Your task to perform on an android device: create a new album in the google photos Image 0: 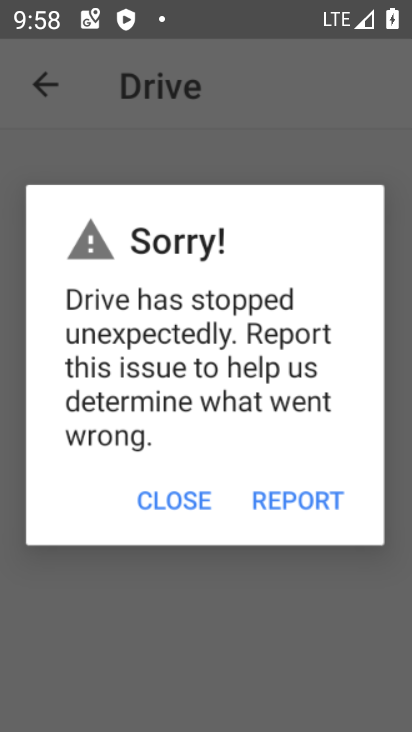
Step 0: drag from (273, 540) to (311, 146)
Your task to perform on an android device: create a new album in the google photos Image 1: 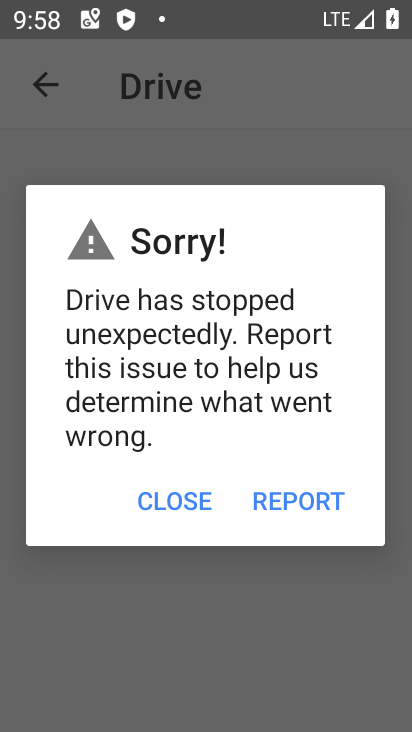
Step 1: press home button
Your task to perform on an android device: create a new album in the google photos Image 2: 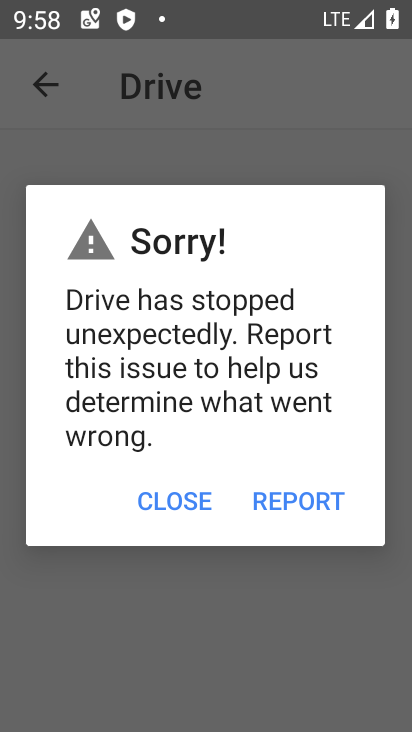
Step 2: click (364, 339)
Your task to perform on an android device: create a new album in the google photos Image 3: 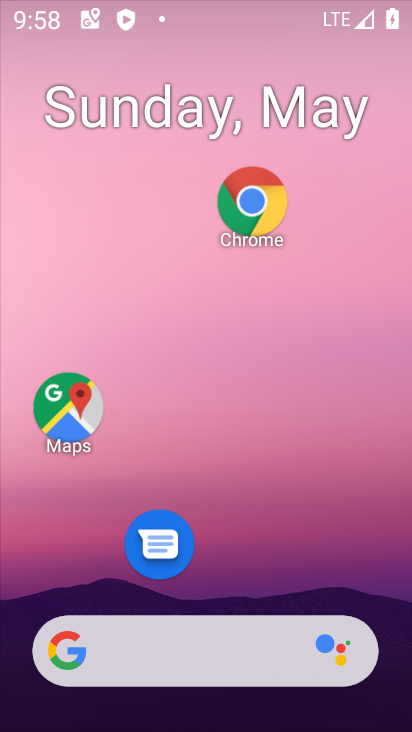
Step 3: drag from (281, 542) to (282, 61)
Your task to perform on an android device: create a new album in the google photos Image 4: 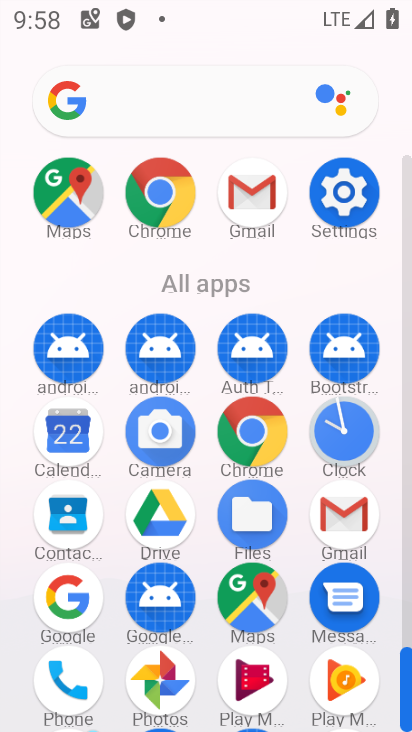
Step 4: click (156, 673)
Your task to perform on an android device: create a new album in the google photos Image 5: 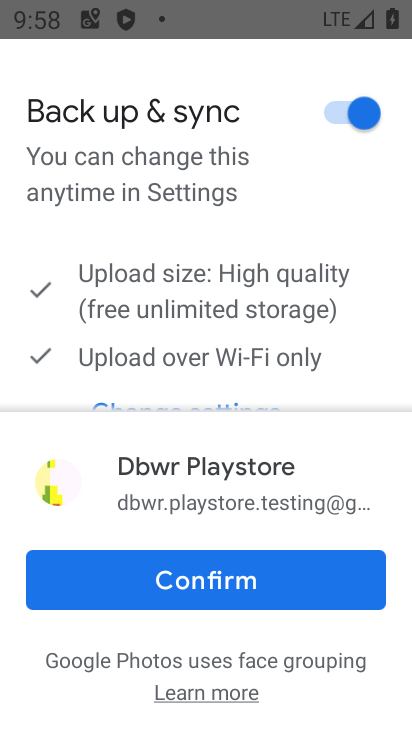
Step 5: click (199, 567)
Your task to perform on an android device: create a new album in the google photos Image 6: 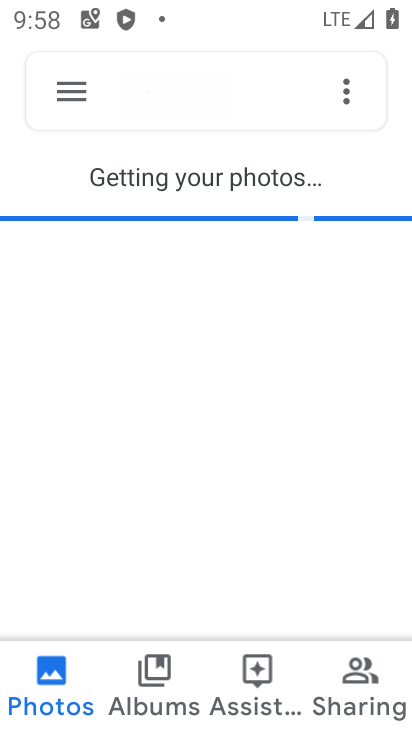
Step 6: click (170, 682)
Your task to perform on an android device: create a new album in the google photos Image 7: 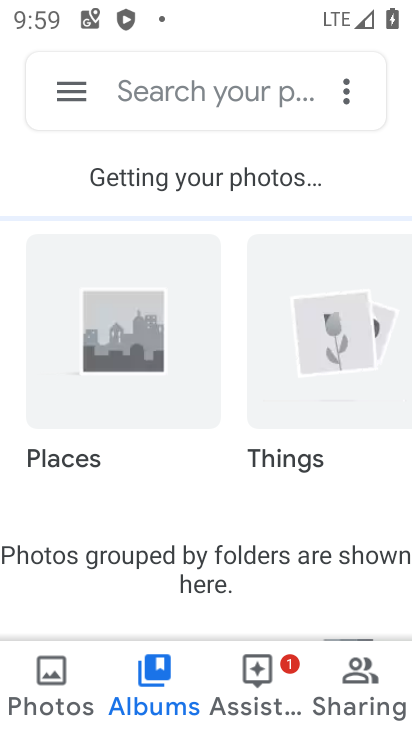
Step 7: drag from (158, 505) to (170, 47)
Your task to perform on an android device: create a new album in the google photos Image 8: 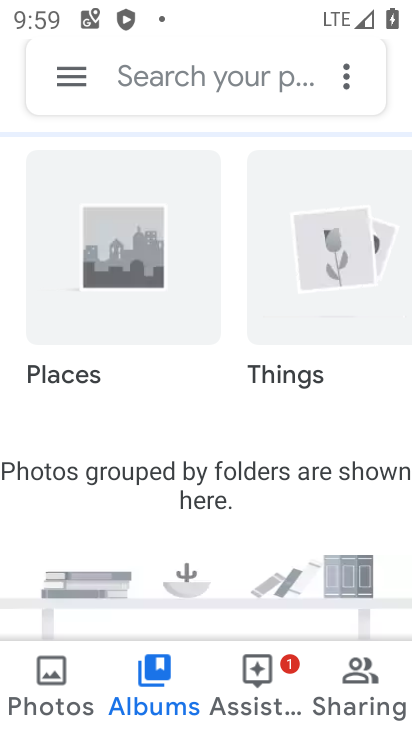
Step 8: drag from (238, 541) to (249, 135)
Your task to perform on an android device: create a new album in the google photos Image 9: 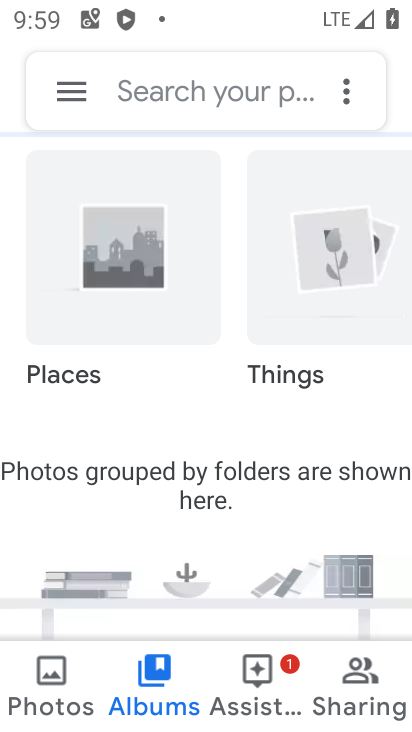
Step 9: drag from (199, 559) to (205, 215)
Your task to perform on an android device: create a new album in the google photos Image 10: 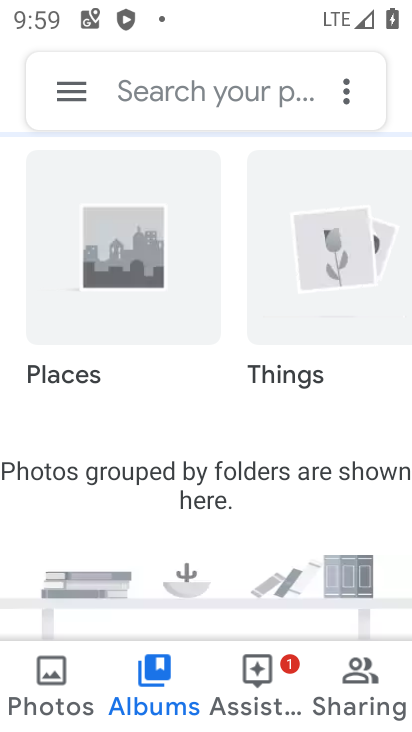
Step 10: click (168, 449)
Your task to perform on an android device: create a new album in the google photos Image 11: 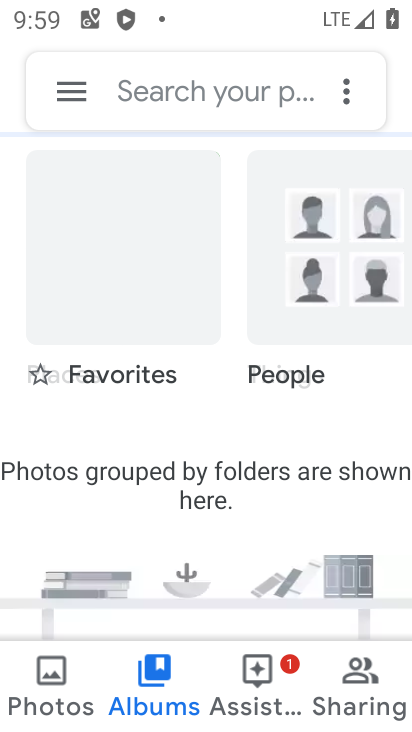
Step 11: click (170, 691)
Your task to perform on an android device: create a new album in the google photos Image 12: 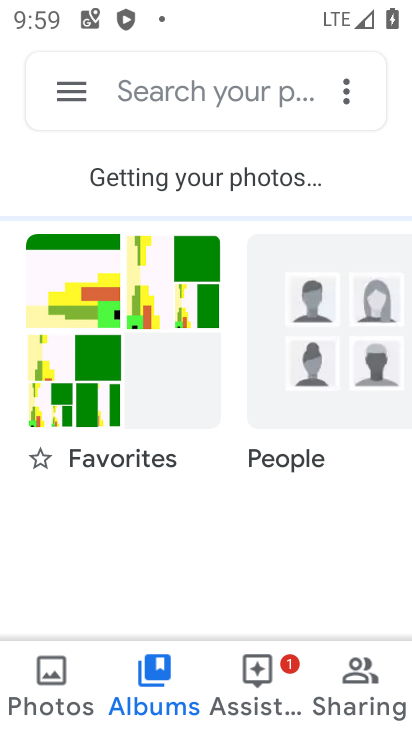
Step 12: task complete